Your task to perform on an android device: How do I get to the nearest T-Mobile Store? Image 0: 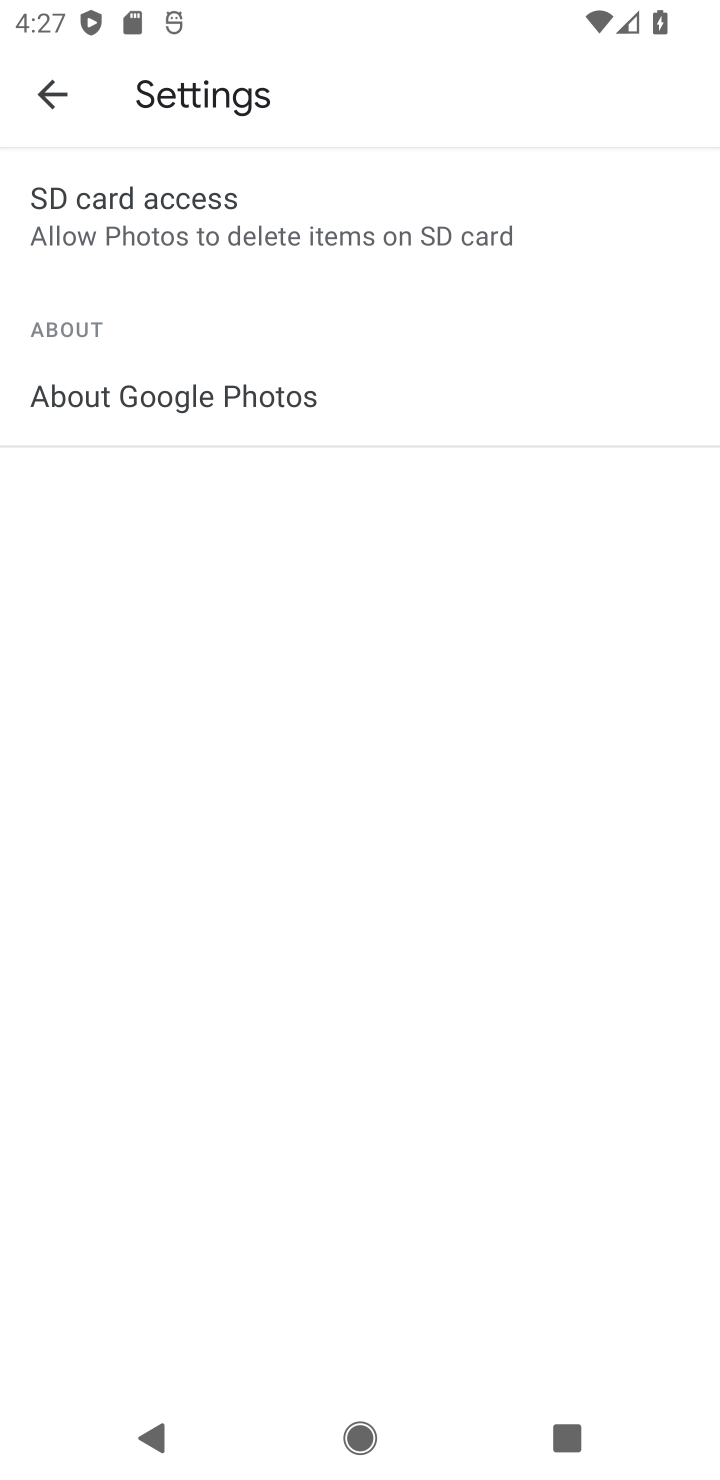
Step 0: press home button
Your task to perform on an android device: How do I get to the nearest T-Mobile Store? Image 1: 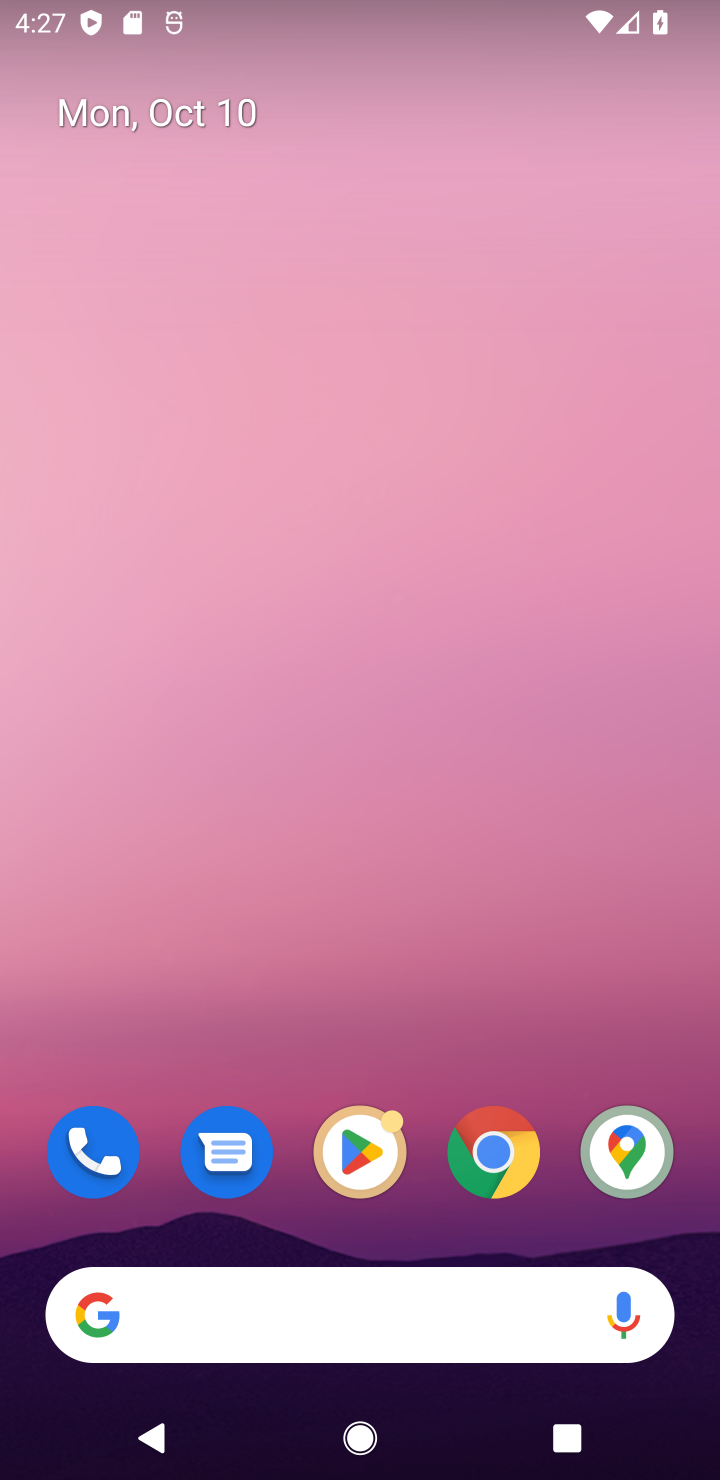
Step 1: click (629, 1142)
Your task to perform on an android device: How do I get to the nearest T-Mobile Store? Image 2: 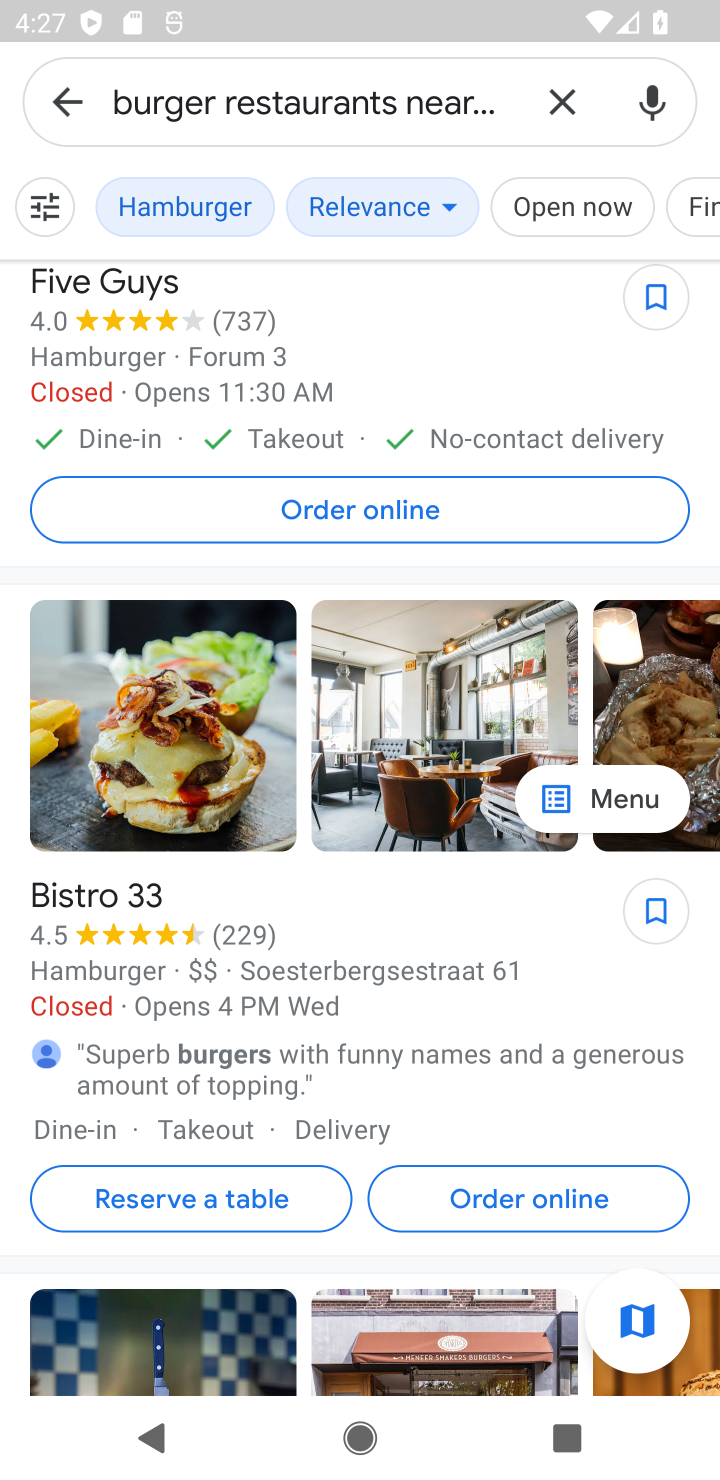
Step 2: click (561, 102)
Your task to perform on an android device: How do I get to the nearest T-Mobile Store? Image 3: 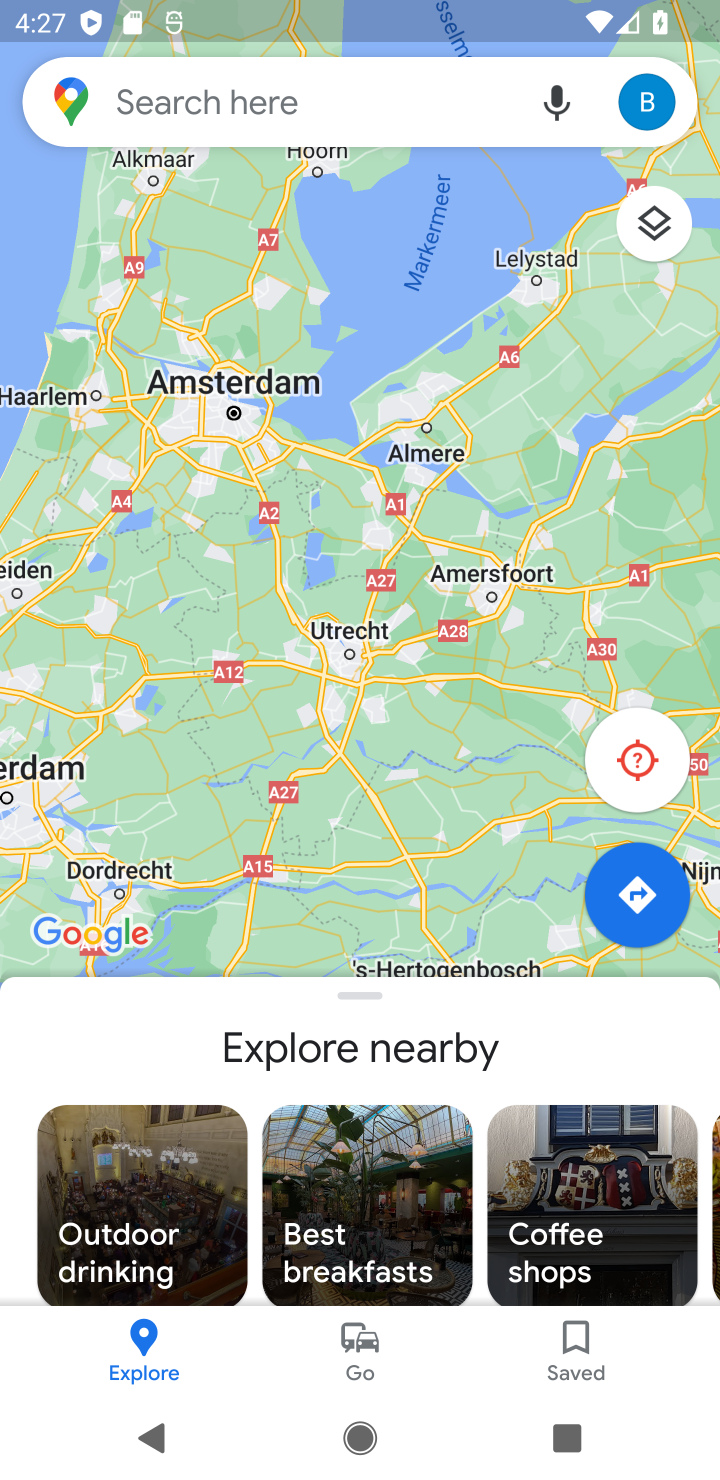
Step 3: click (343, 94)
Your task to perform on an android device: How do I get to the nearest T-Mobile Store? Image 4: 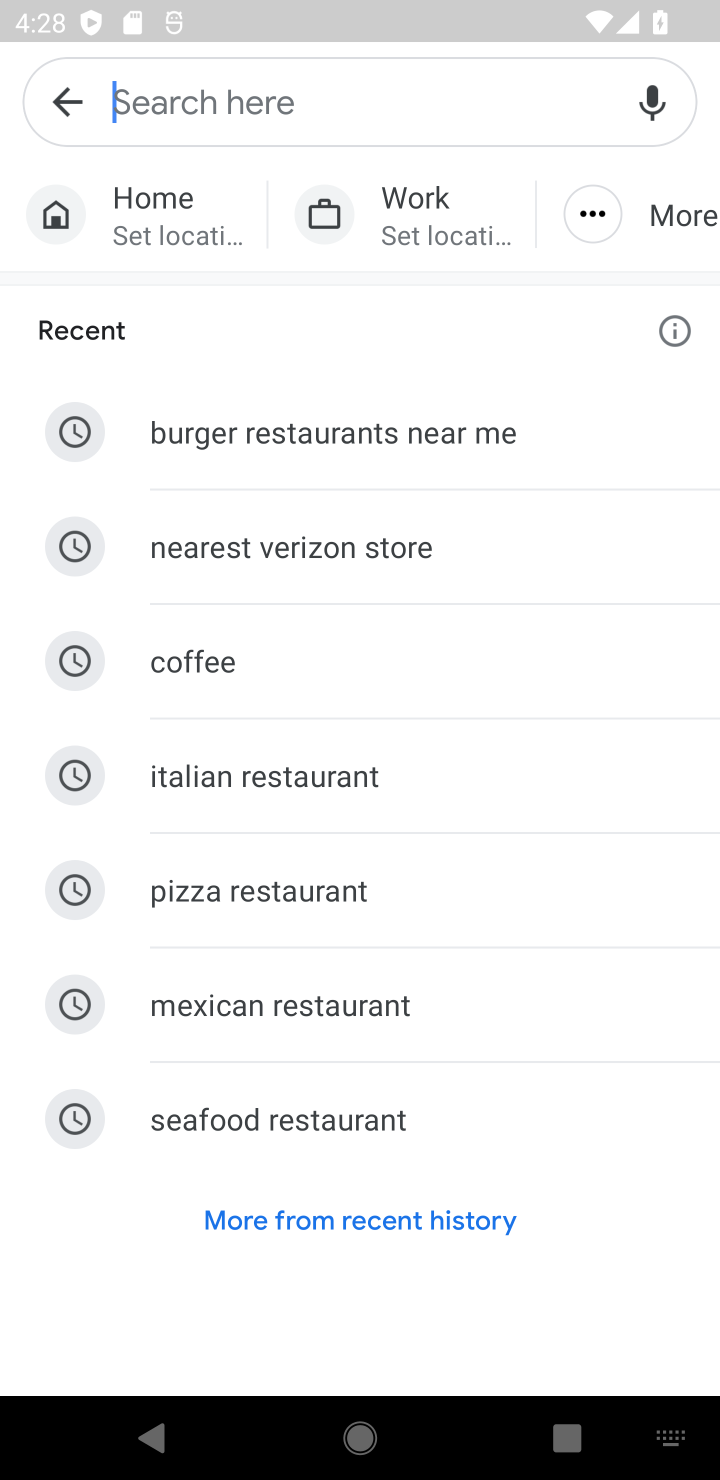
Step 4: type "nearest T-Mobile Store"
Your task to perform on an android device: How do I get to the nearest T-Mobile Store? Image 5: 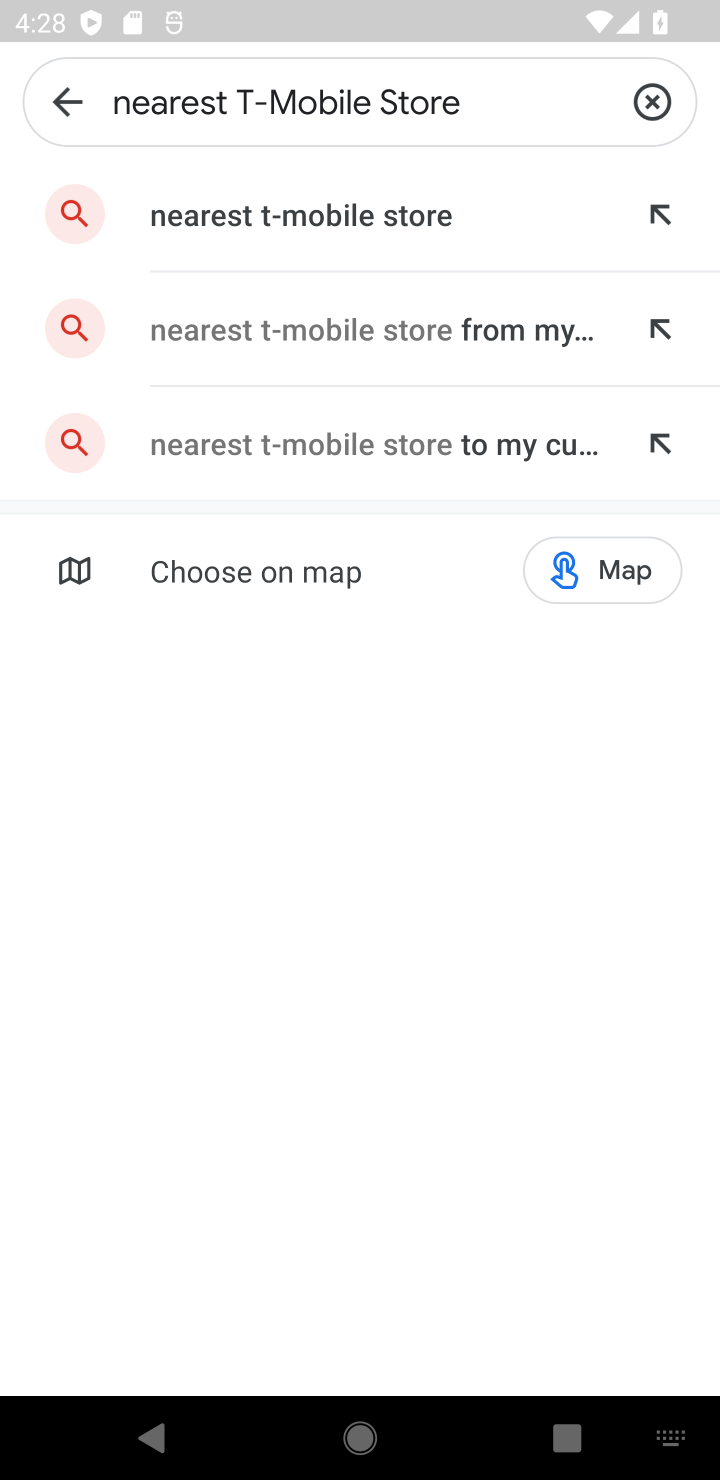
Step 5: click (335, 205)
Your task to perform on an android device: How do I get to the nearest T-Mobile Store? Image 6: 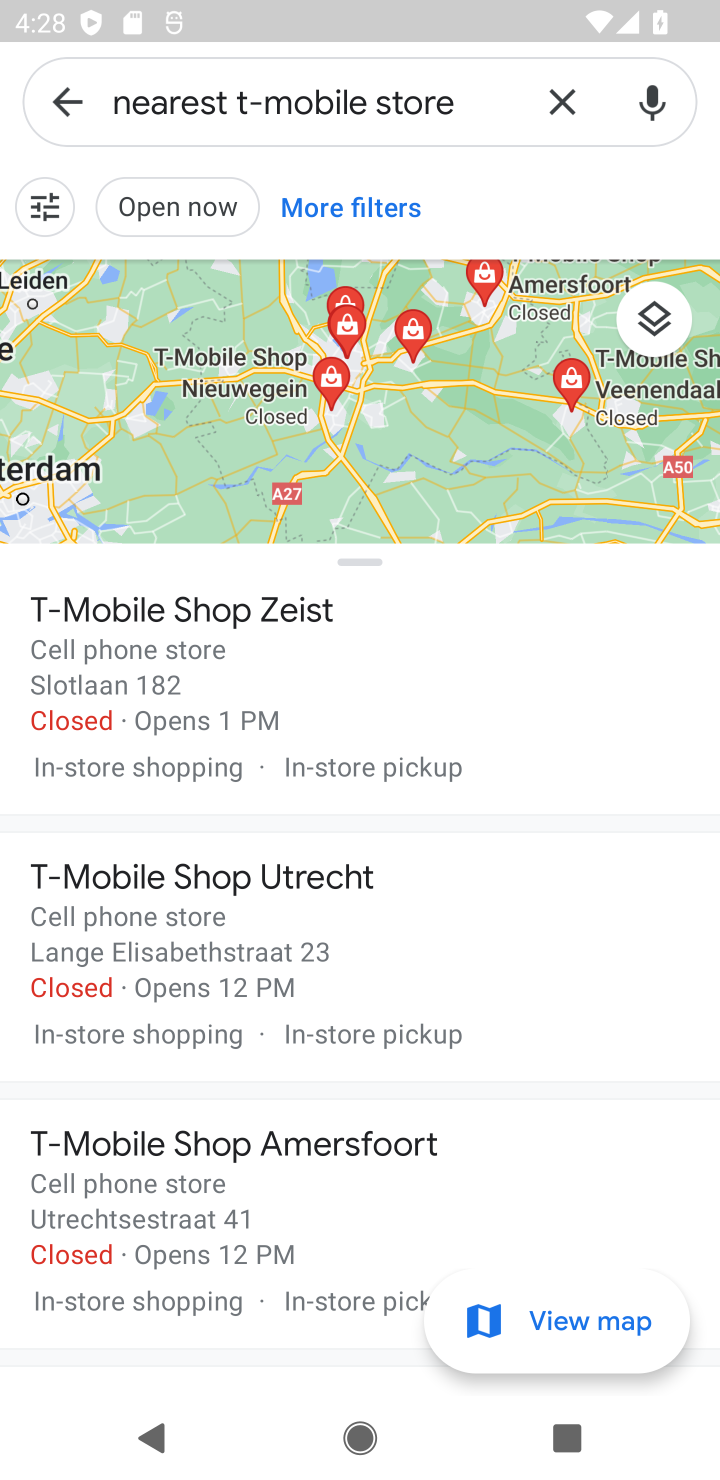
Step 6: task complete